Your task to perform on an android device: open a new tab in the chrome app Image 0: 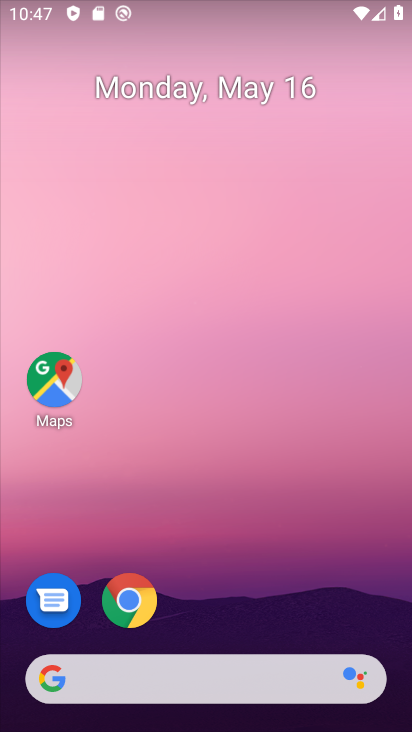
Step 0: click (124, 604)
Your task to perform on an android device: open a new tab in the chrome app Image 1: 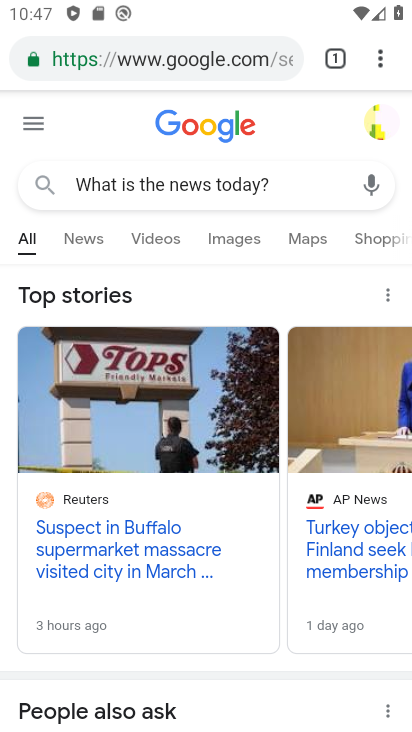
Step 1: click (340, 59)
Your task to perform on an android device: open a new tab in the chrome app Image 2: 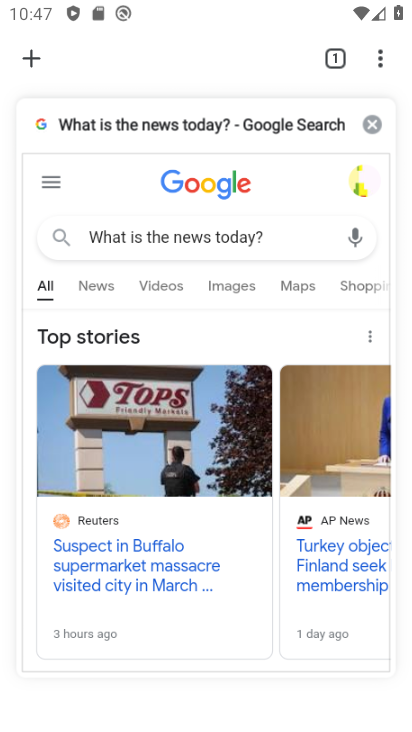
Step 2: task complete